Your task to perform on an android device: turn off translation in the chrome app Image 0: 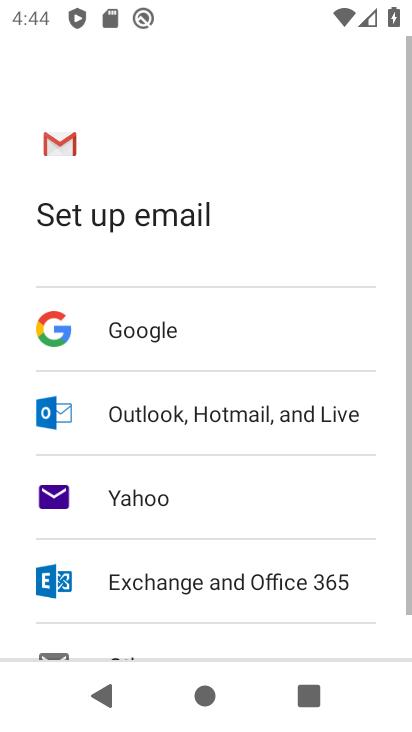
Step 0: press home button
Your task to perform on an android device: turn off translation in the chrome app Image 1: 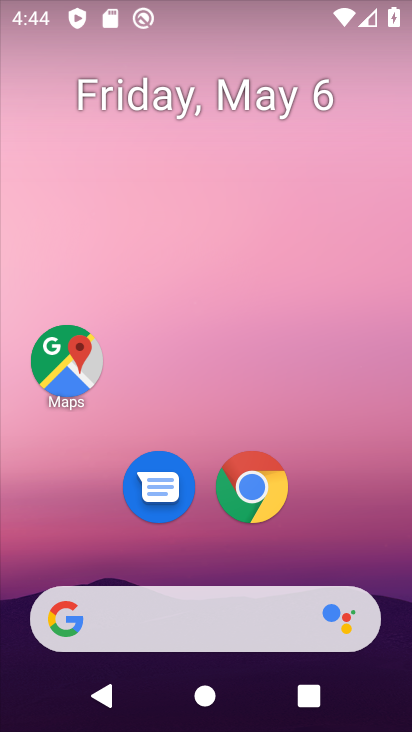
Step 1: click (254, 490)
Your task to perform on an android device: turn off translation in the chrome app Image 2: 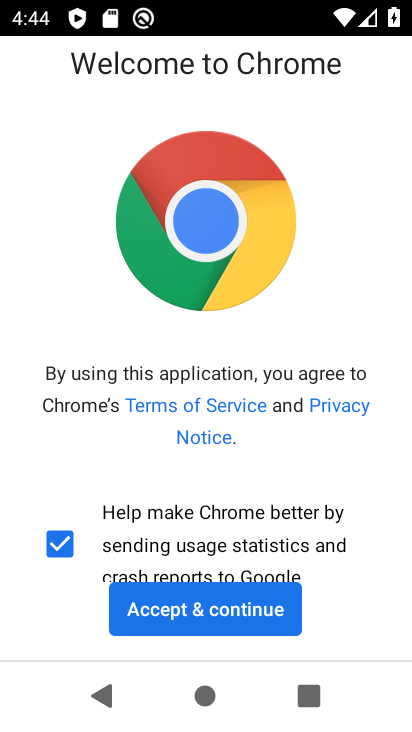
Step 2: click (210, 614)
Your task to perform on an android device: turn off translation in the chrome app Image 3: 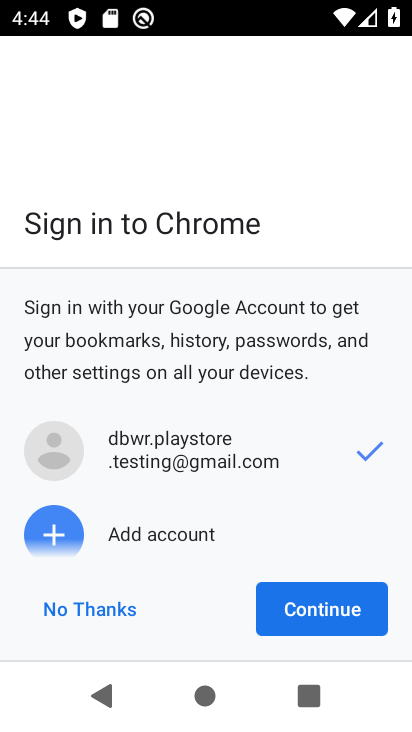
Step 3: click (320, 604)
Your task to perform on an android device: turn off translation in the chrome app Image 4: 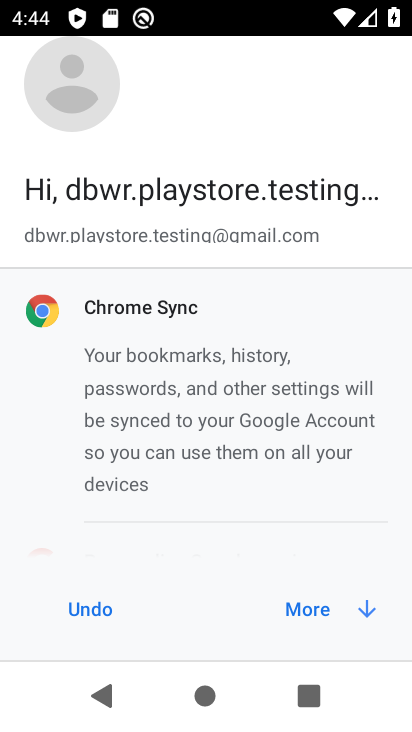
Step 4: click (315, 611)
Your task to perform on an android device: turn off translation in the chrome app Image 5: 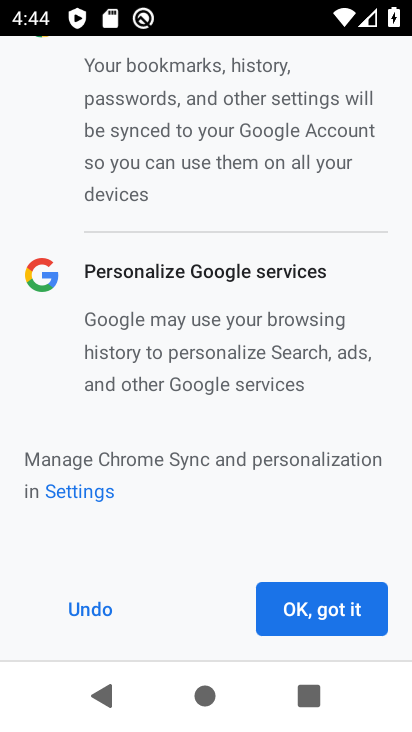
Step 5: click (315, 611)
Your task to perform on an android device: turn off translation in the chrome app Image 6: 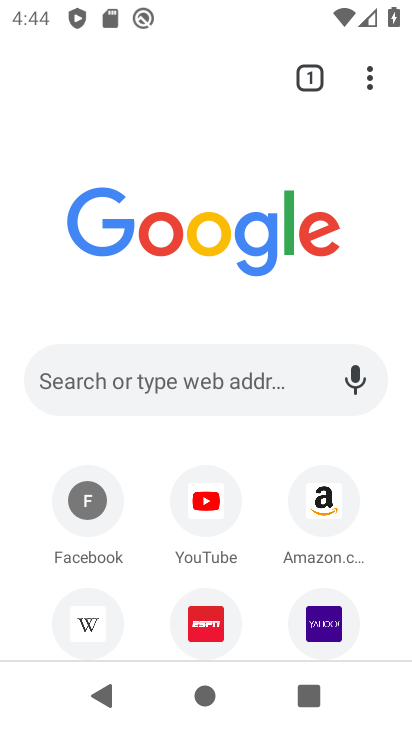
Step 6: click (373, 78)
Your task to perform on an android device: turn off translation in the chrome app Image 7: 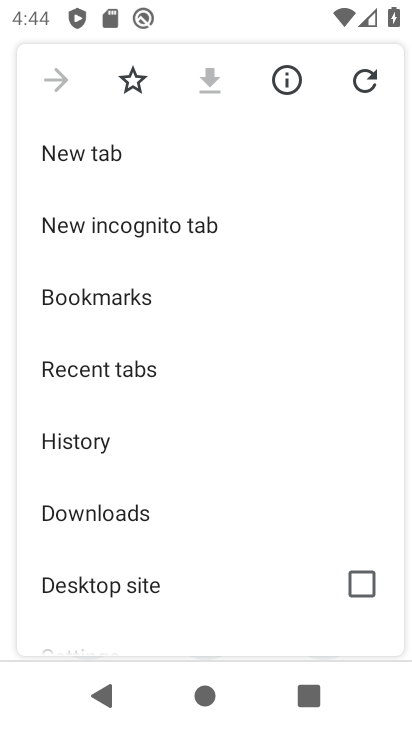
Step 7: drag from (145, 485) to (162, 374)
Your task to perform on an android device: turn off translation in the chrome app Image 8: 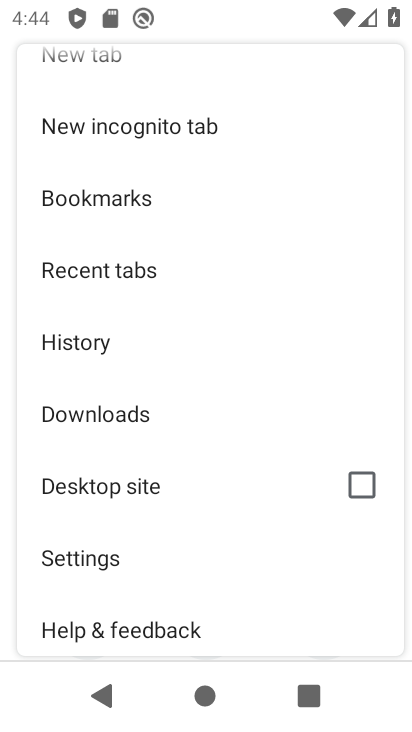
Step 8: click (86, 560)
Your task to perform on an android device: turn off translation in the chrome app Image 9: 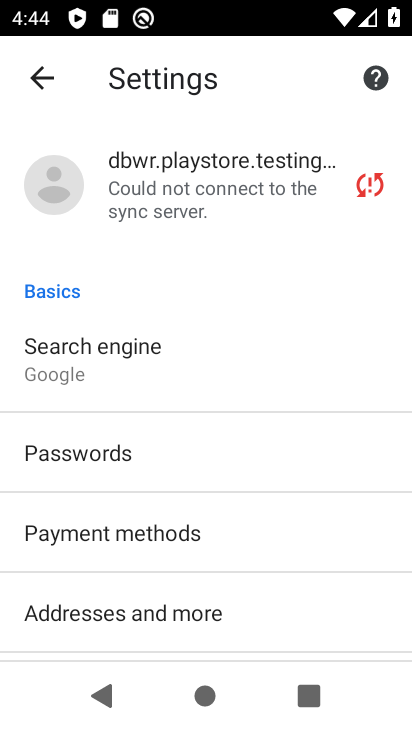
Step 9: drag from (134, 526) to (177, 350)
Your task to perform on an android device: turn off translation in the chrome app Image 10: 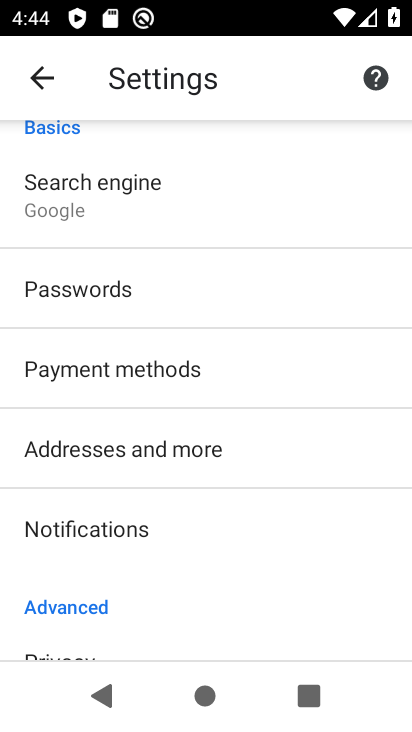
Step 10: drag from (140, 493) to (207, 363)
Your task to perform on an android device: turn off translation in the chrome app Image 11: 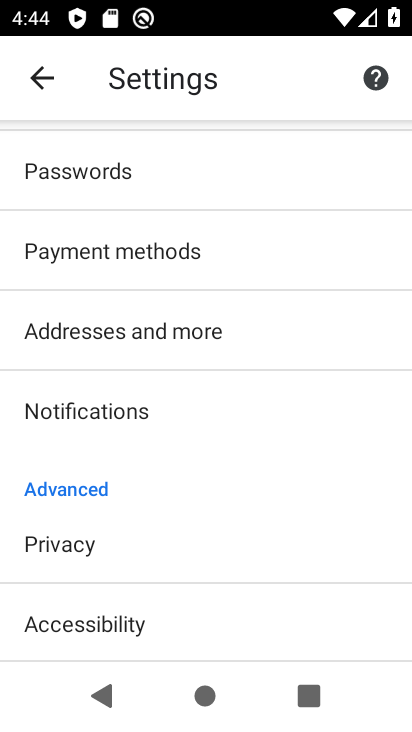
Step 11: drag from (120, 528) to (197, 384)
Your task to perform on an android device: turn off translation in the chrome app Image 12: 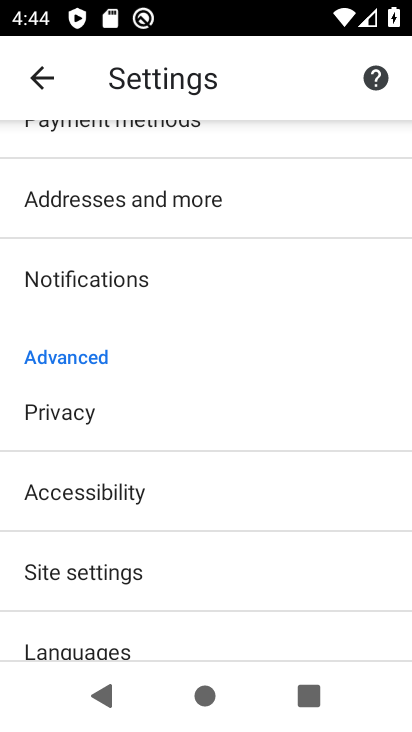
Step 12: drag from (134, 523) to (198, 435)
Your task to perform on an android device: turn off translation in the chrome app Image 13: 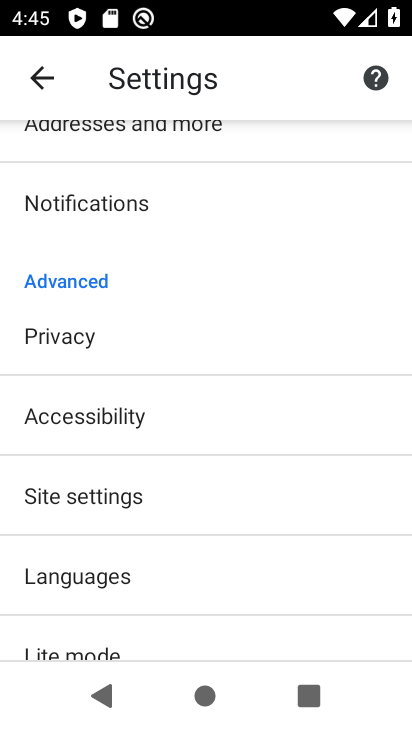
Step 13: click (95, 579)
Your task to perform on an android device: turn off translation in the chrome app Image 14: 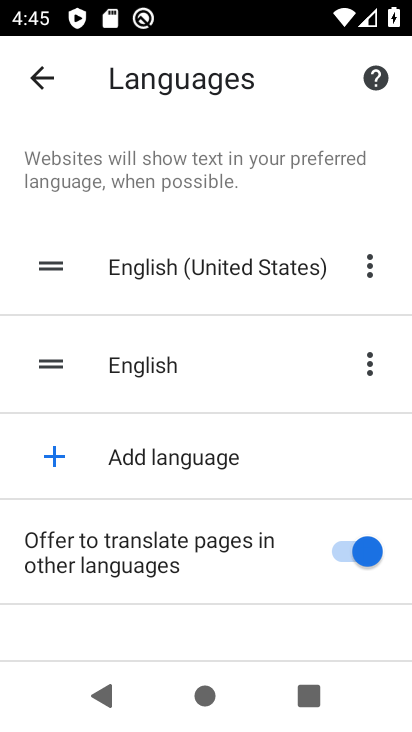
Step 14: click (337, 550)
Your task to perform on an android device: turn off translation in the chrome app Image 15: 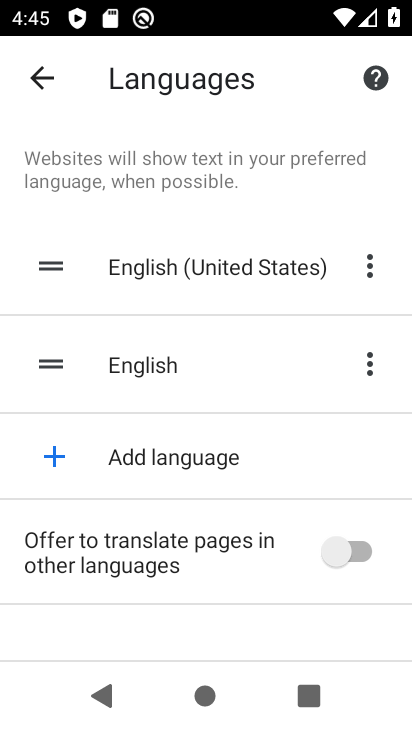
Step 15: task complete